Your task to perform on an android device: turn on the 12-hour format for clock Image 0: 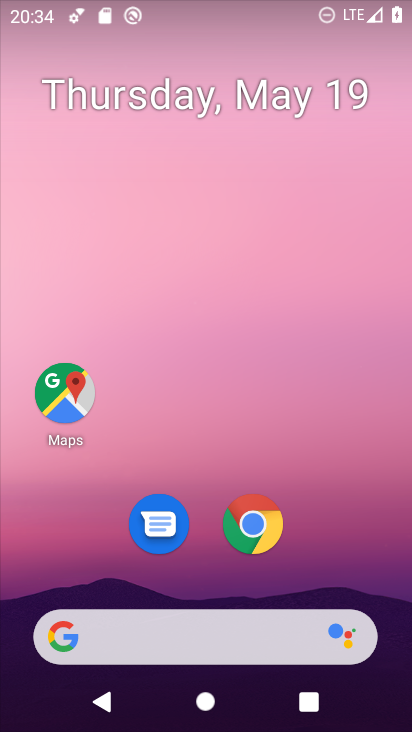
Step 0: drag from (304, 469) to (248, 116)
Your task to perform on an android device: turn on the 12-hour format for clock Image 1: 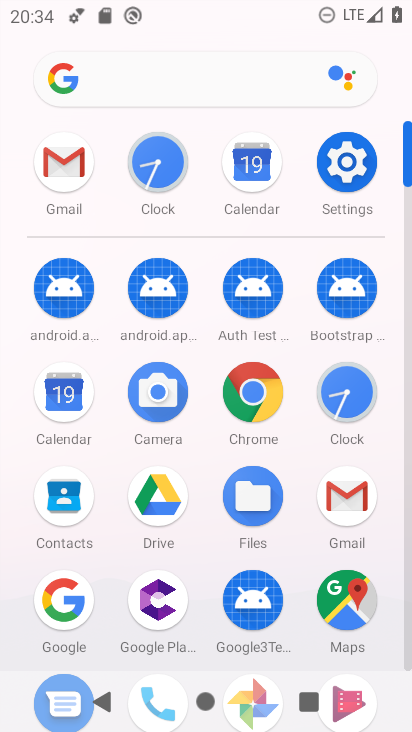
Step 1: click (168, 156)
Your task to perform on an android device: turn on the 12-hour format for clock Image 2: 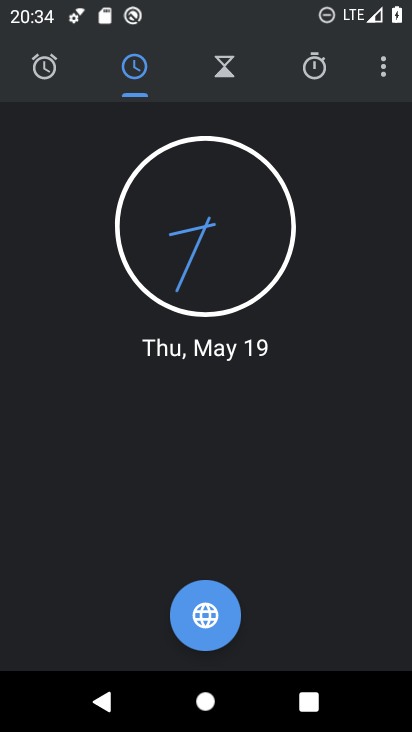
Step 2: click (380, 68)
Your task to perform on an android device: turn on the 12-hour format for clock Image 3: 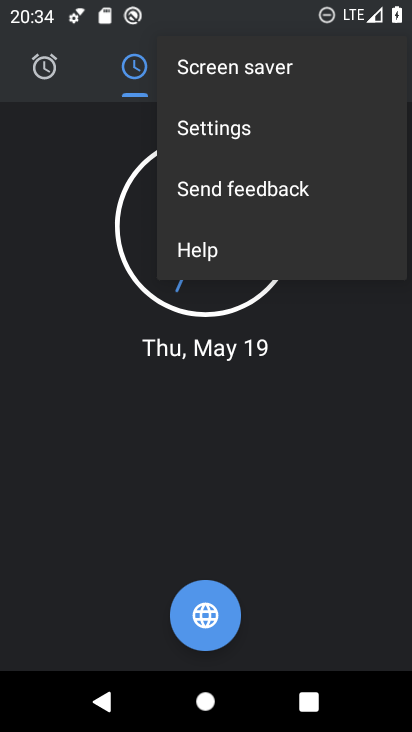
Step 3: click (300, 128)
Your task to perform on an android device: turn on the 12-hour format for clock Image 4: 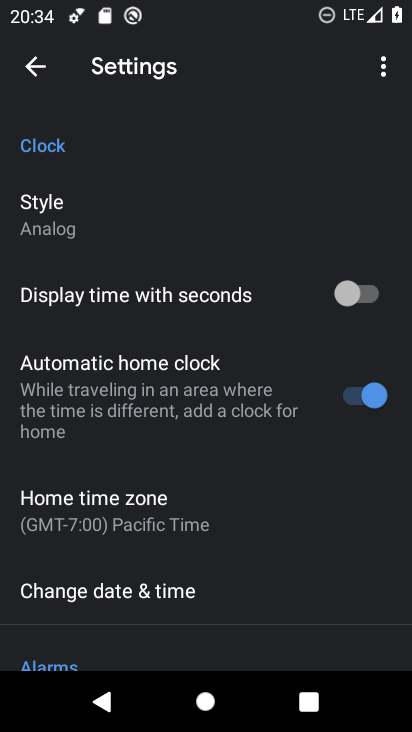
Step 4: click (212, 591)
Your task to perform on an android device: turn on the 12-hour format for clock Image 5: 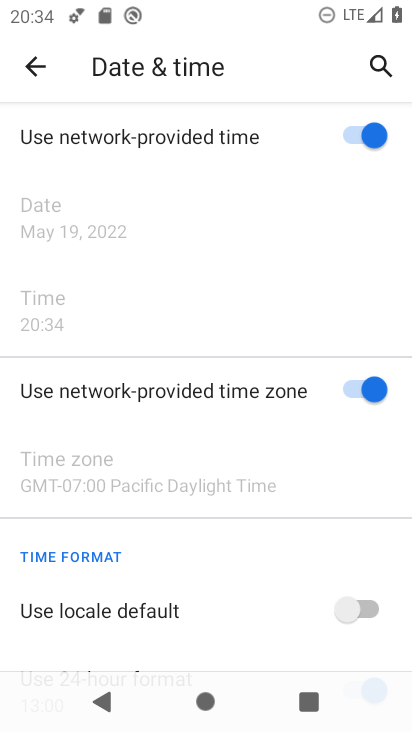
Step 5: drag from (225, 545) to (218, 340)
Your task to perform on an android device: turn on the 12-hour format for clock Image 6: 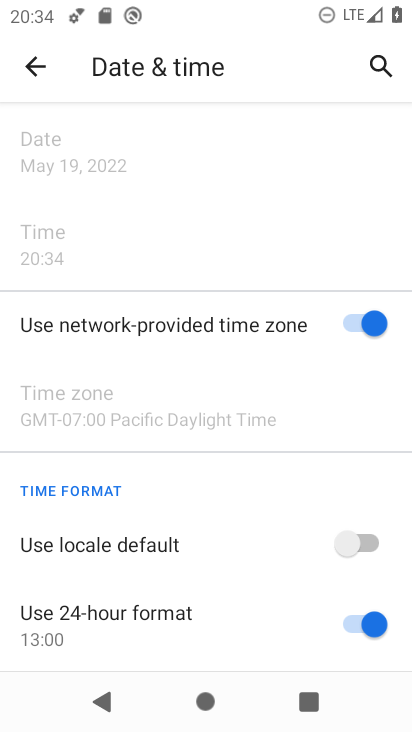
Step 6: click (360, 538)
Your task to perform on an android device: turn on the 12-hour format for clock Image 7: 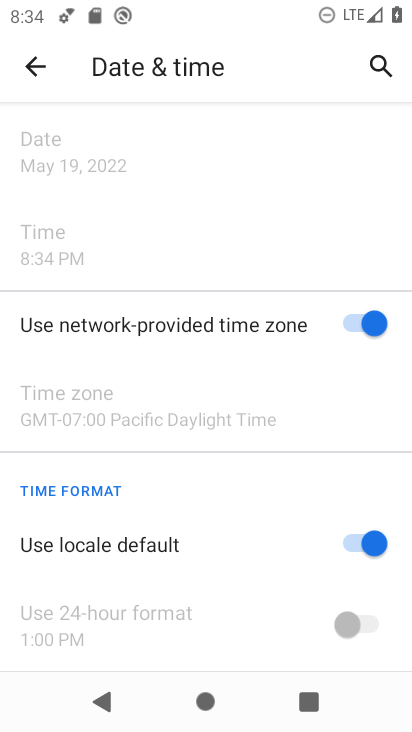
Step 7: task complete